Your task to perform on an android device: open chrome privacy settings Image 0: 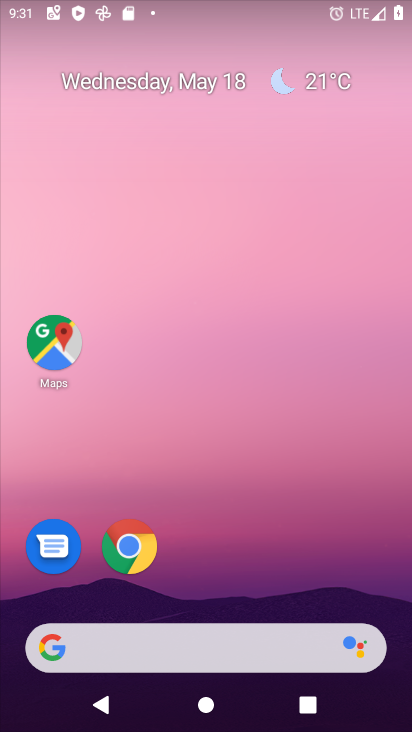
Step 0: drag from (387, 602) to (289, 77)
Your task to perform on an android device: open chrome privacy settings Image 1: 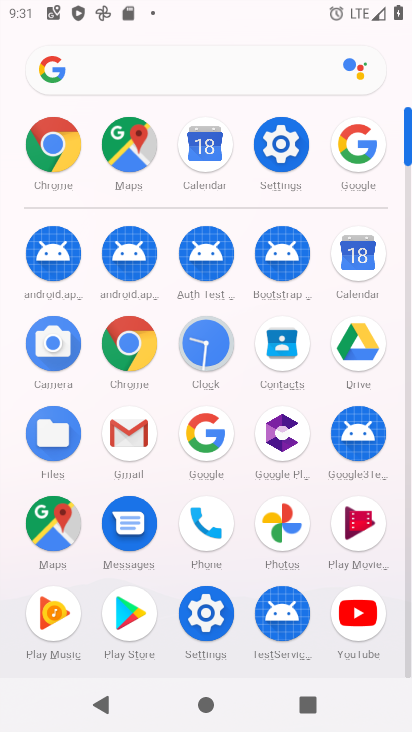
Step 1: click (207, 622)
Your task to perform on an android device: open chrome privacy settings Image 2: 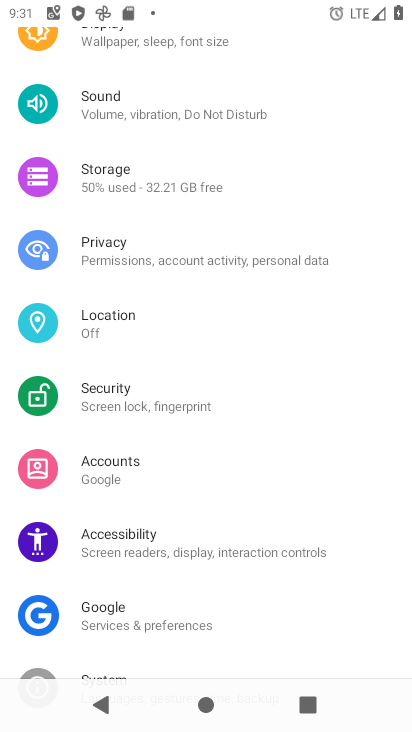
Step 2: press home button
Your task to perform on an android device: open chrome privacy settings Image 3: 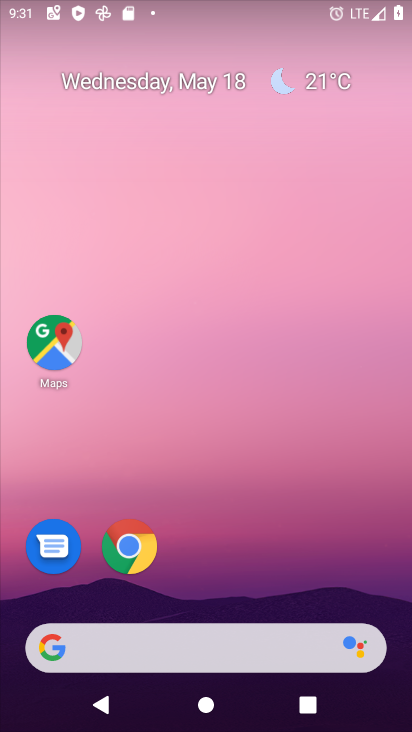
Step 3: click (143, 539)
Your task to perform on an android device: open chrome privacy settings Image 4: 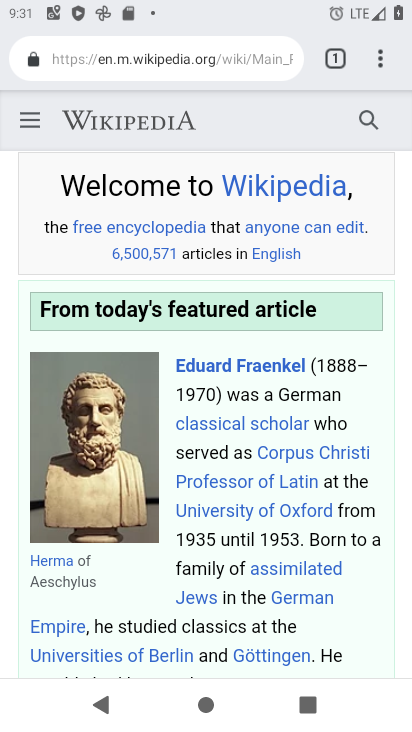
Step 4: press back button
Your task to perform on an android device: open chrome privacy settings Image 5: 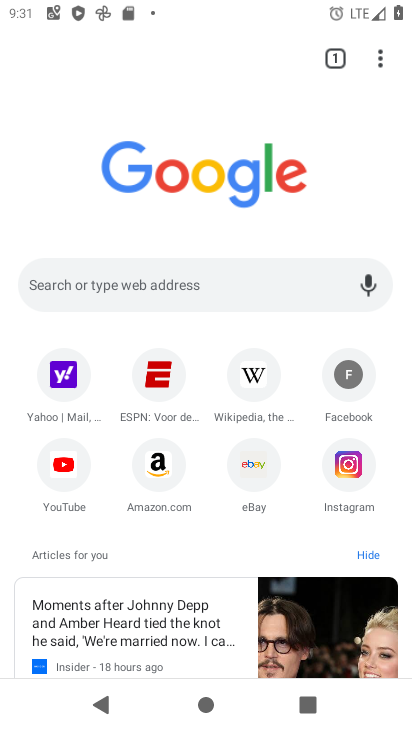
Step 5: click (382, 53)
Your task to perform on an android device: open chrome privacy settings Image 6: 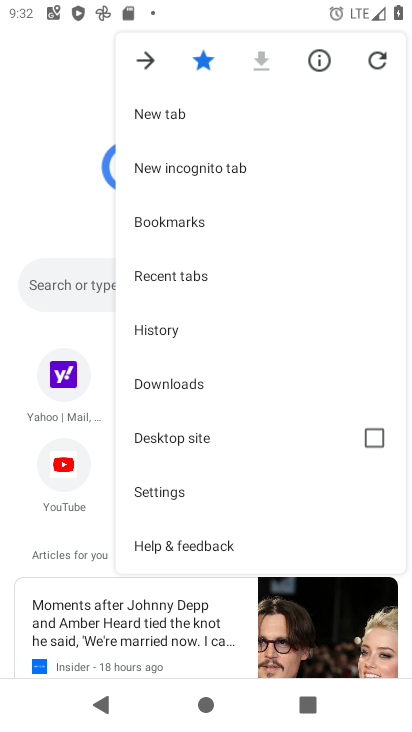
Step 6: click (206, 495)
Your task to perform on an android device: open chrome privacy settings Image 7: 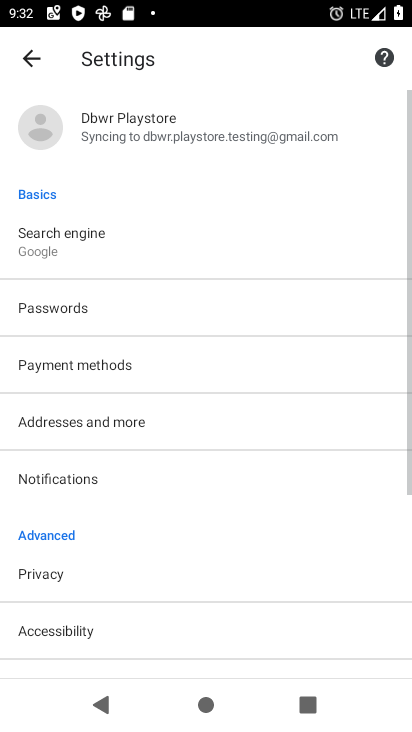
Step 7: click (114, 572)
Your task to perform on an android device: open chrome privacy settings Image 8: 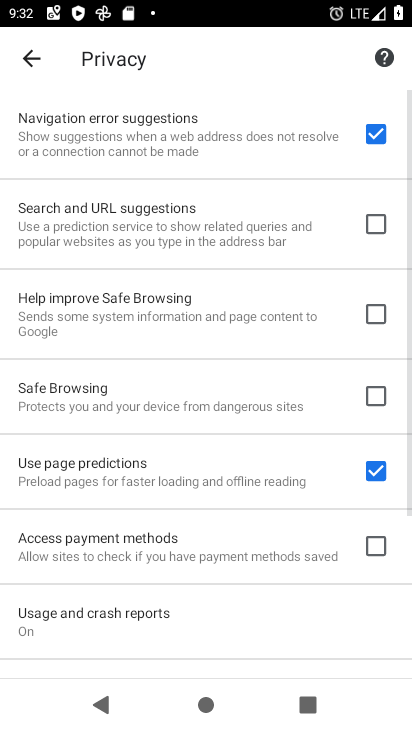
Step 8: task complete